Your task to perform on an android device: What is the news today? Image 0: 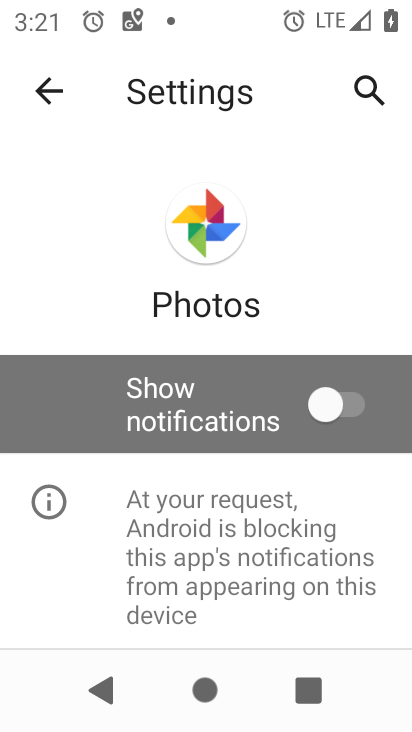
Step 0: press home button
Your task to perform on an android device: What is the news today? Image 1: 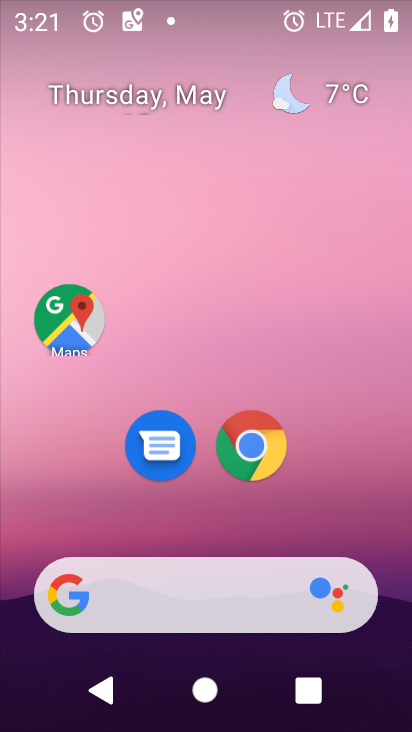
Step 1: click (139, 587)
Your task to perform on an android device: What is the news today? Image 2: 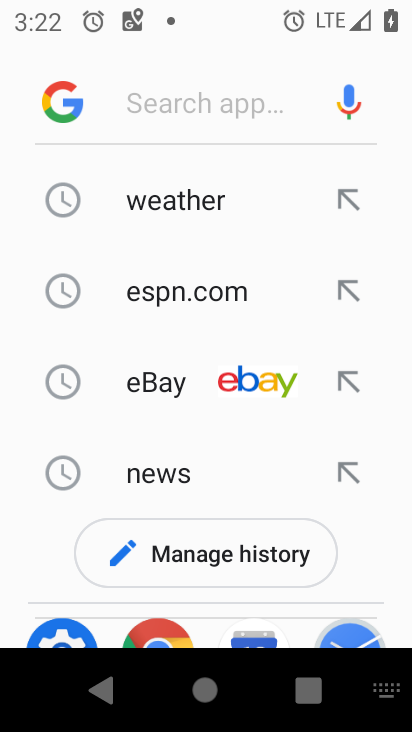
Step 2: type "today's news"
Your task to perform on an android device: What is the news today? Image 3: 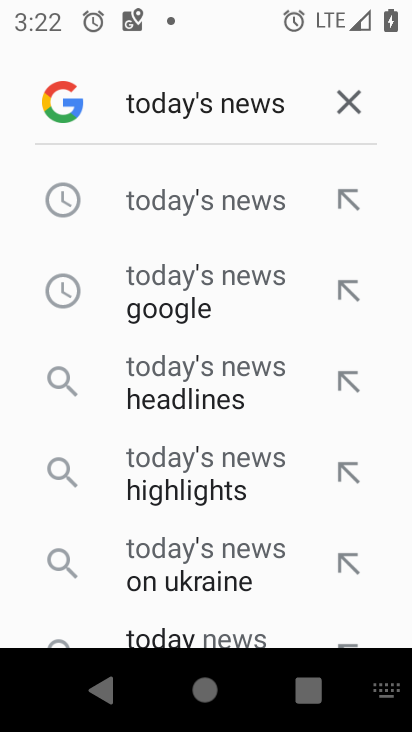
Step 3: click (225, 198)
Your task to perform on an android device: What is the news today? Image 4: 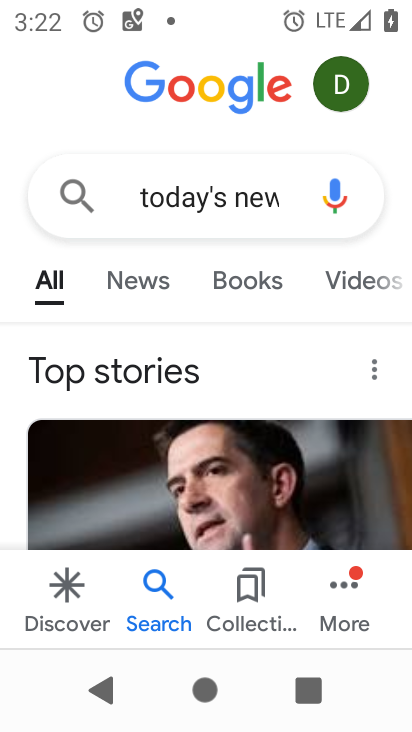
Step 4: click (146, 285)
Your task to perform on an android device: What is the news today? Image 5: 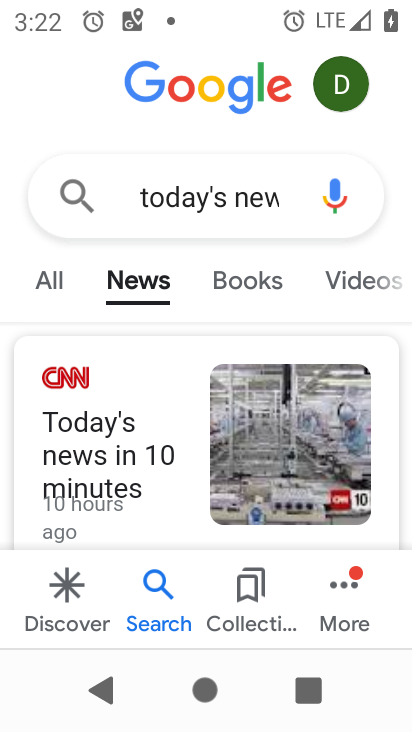
Step 5: drag from (234, 430) to (244, 106)
Your task to perform on an android device: What is the news today? Image 6: 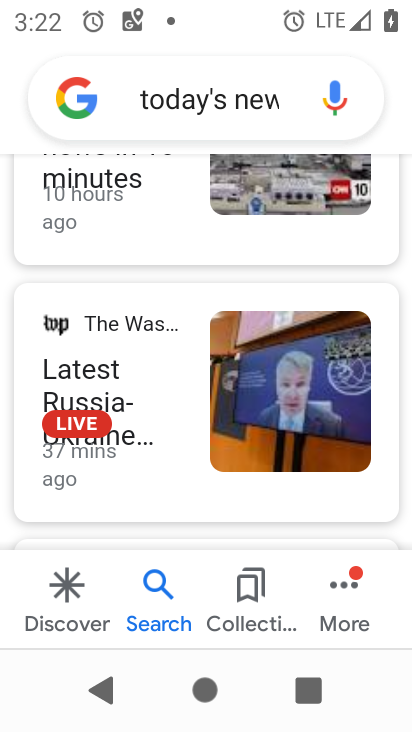
Step 6: click (133, 376)
Your task to perform on an android device: What is the news today? Image 7: 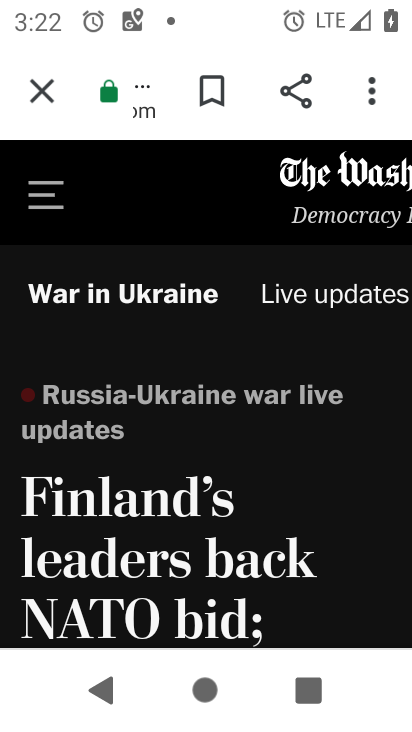
Step 7: task complete